Your task to perform on an android device: turn pop-ups off in chrome Image 0: 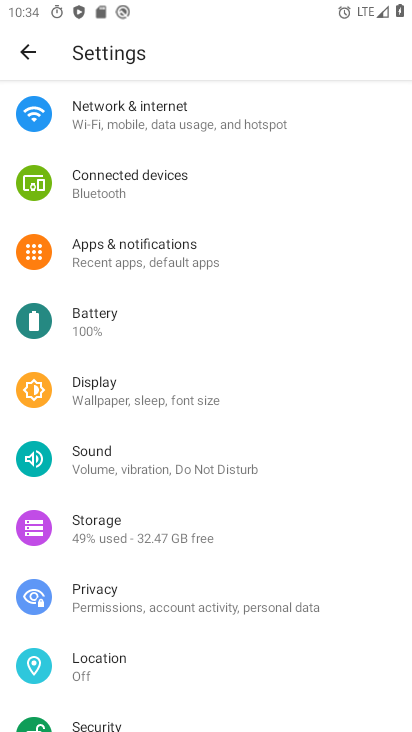
Step 0: press home button
Your task to perform on an android device: turn pop-ups off in chrome Image 1: 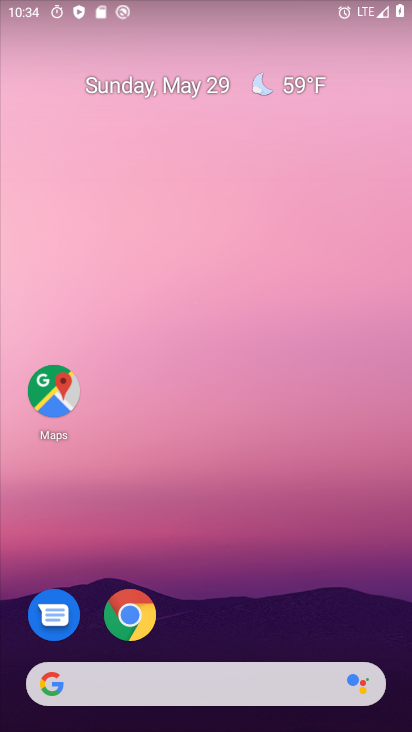
Step 1: click (130, 614)
Your task to perform on an android device: turn pop-ups off in chrome Image 2: 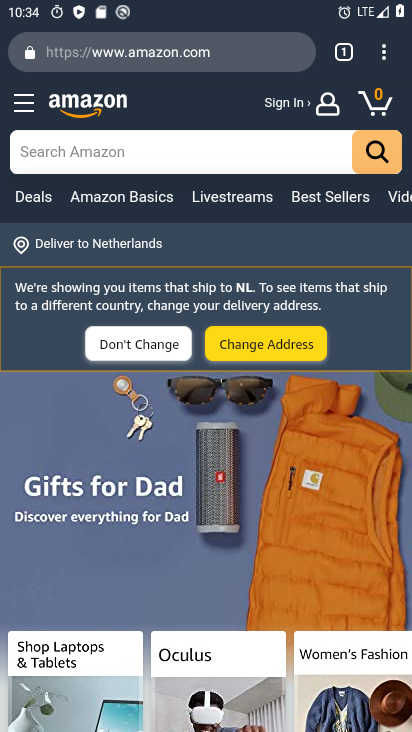
Step 2: click (378, 50)
Your task to perform on an android device: turn pop-ups off in chrome Image 3: 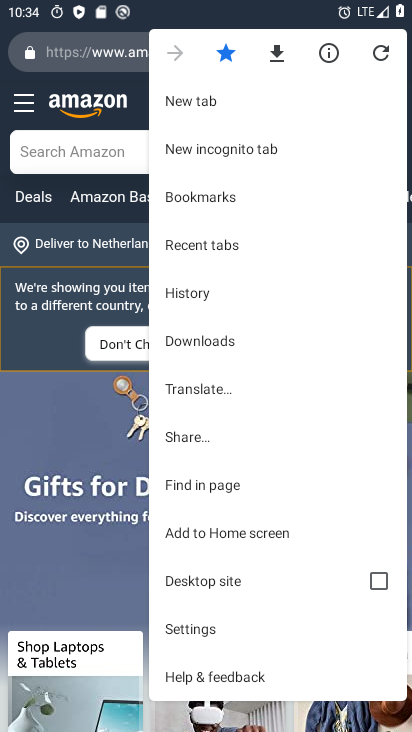
Step 3: click (204, 627)
Your task to perform on an android device: turn pop-ups off in chrome Image 4: 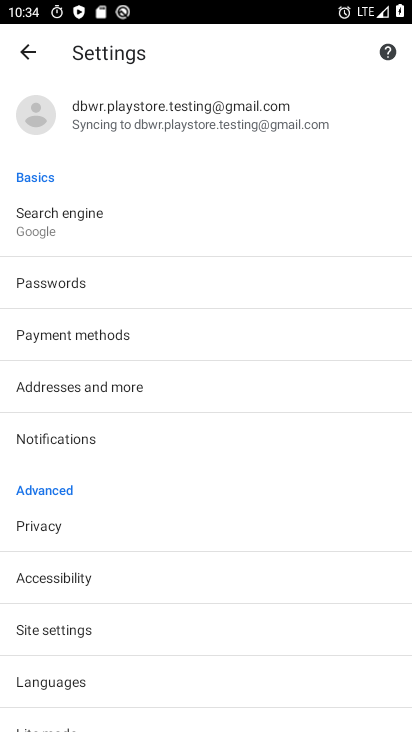
Step 4: click (52, 623)
Your task to perform on an android device: turn pop-ups off in chrome Image 5: 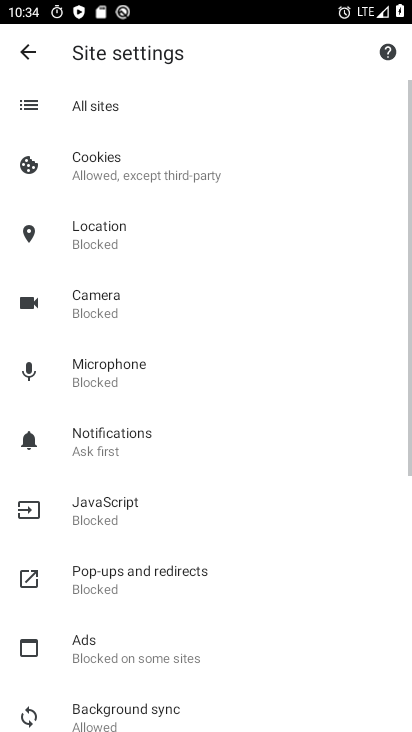
Step 5: click (157, 586)
Your task to perform on an android device: turn pop-ups off in chrome Image 6: 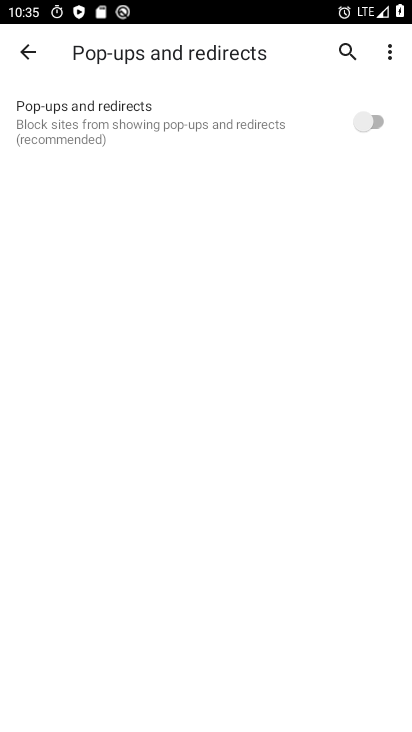
Step 6: task complete